Your task to perform on an android device: toggle airplane mode Image 0: 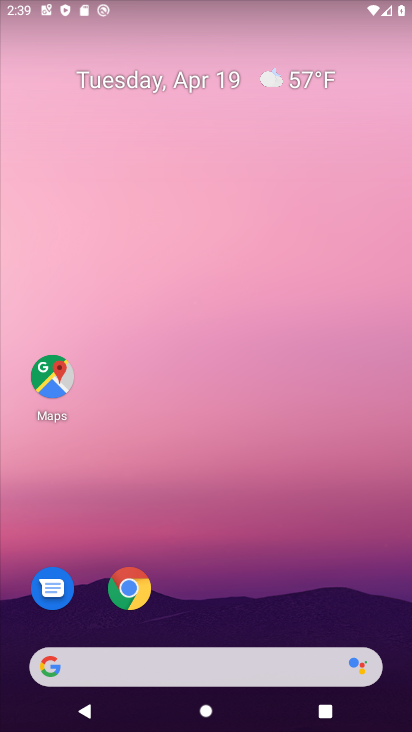
Step 0: drag from (300, 564) to (338, 73)
Your task to perform on an android device: toggle airplane mode Image 1: 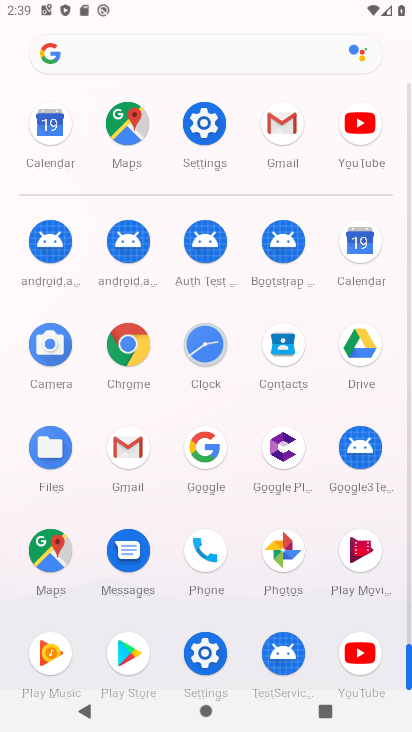
Step 1: click (216, 133)
Your task to perform on an android device: toggle airplane mode Image 2: 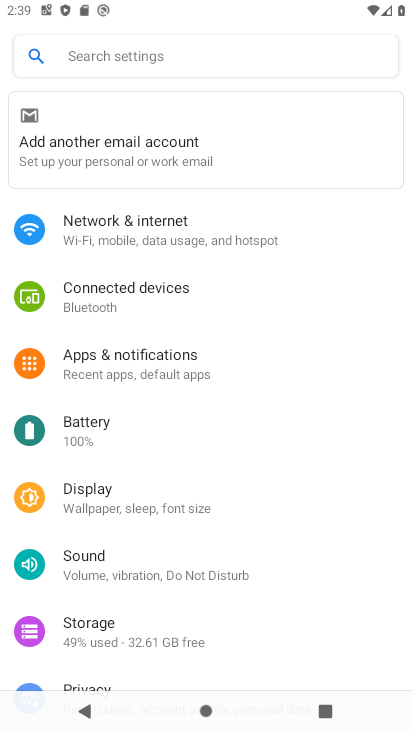
Step 2: click (214, 240)
Your task to perform on an android device: toggle airplane mode Image 3: 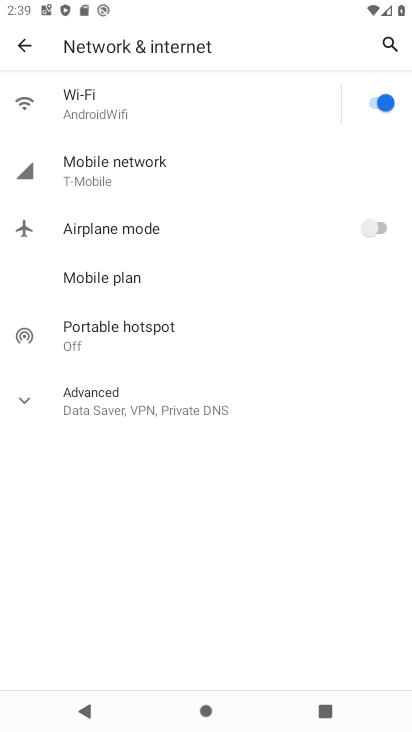
Step 3: click (370, 226)
Your task to perform on an android device: toggle airplane mode Image 4: 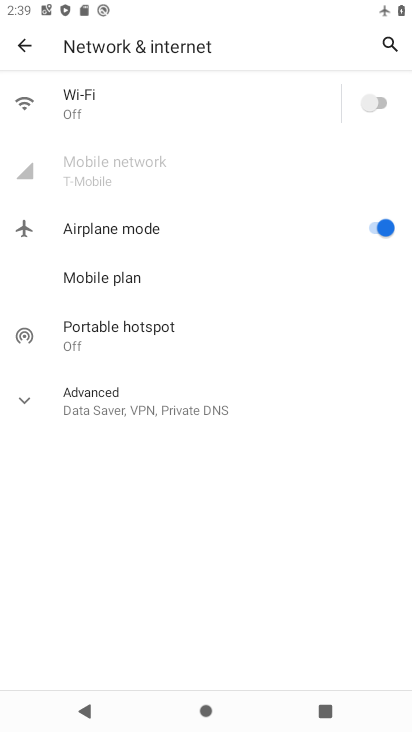
Step 4: task complete